Your task to perform on an android device: open chrome privacy settings Image 0: 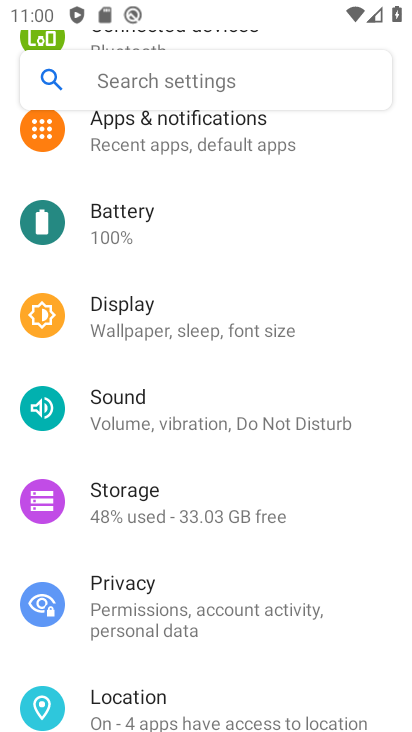
Step 0: press back button
Your task to perform on an android device: open chrome privacy settings Image 1: 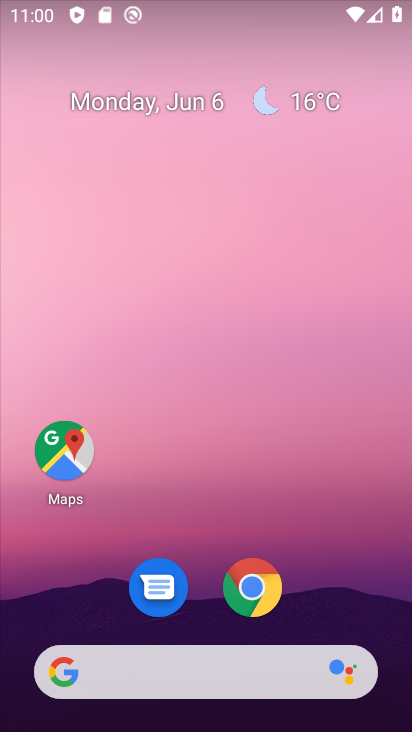
Step 1: drag from (297, 583) to (256, 5)
Your task to perform on an android device: open chrome privacy settings Image 2: 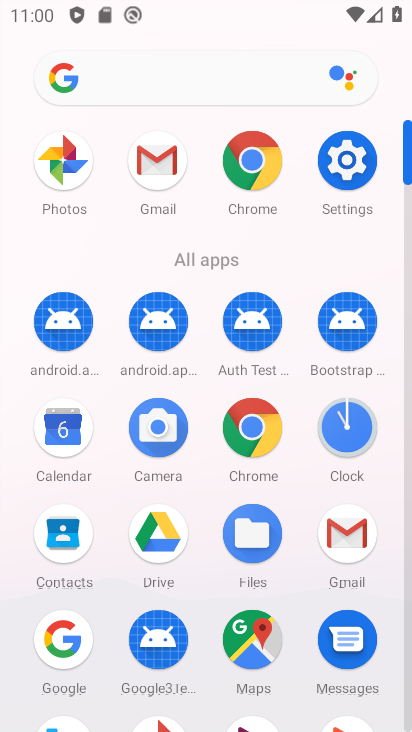
Step 2: drag from (9, 637) to (27, 252)
Your task to perform on an android device: open chrome privacy settings Image 3: 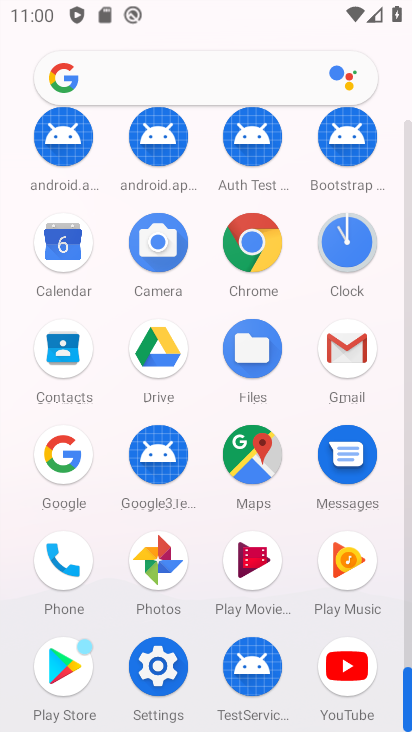
Step 3: click (155, 661)
Your task to perform on an android device: open chrome privacy settings Image 4: 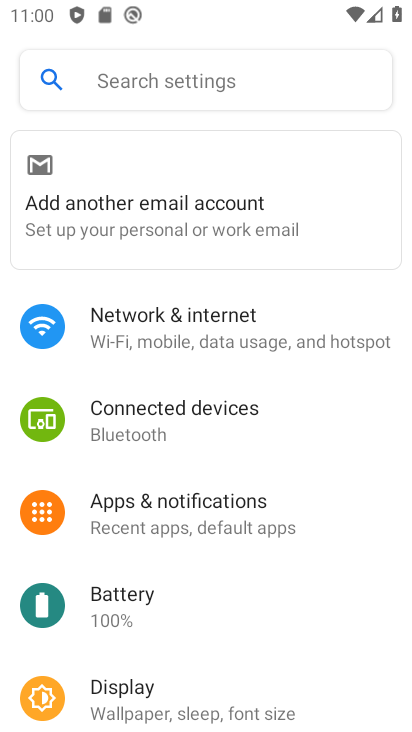
Step 4: press back button
Your task to perform on an android device: open chrome privacy settings Image 5: 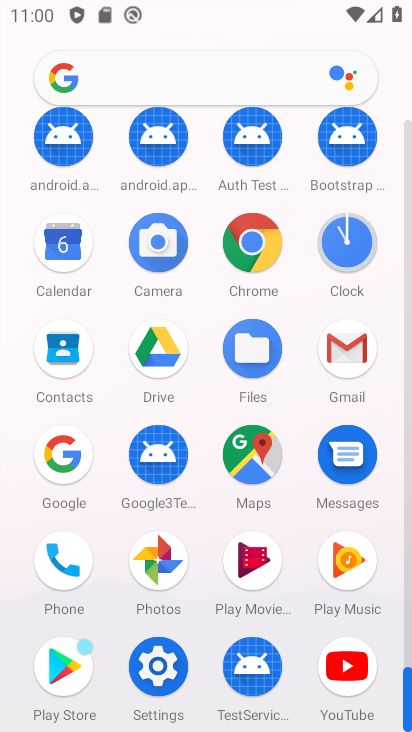
Step 5: click (253, 236)
Your task to perform on an android device: open chrome privacy settings Image 6: 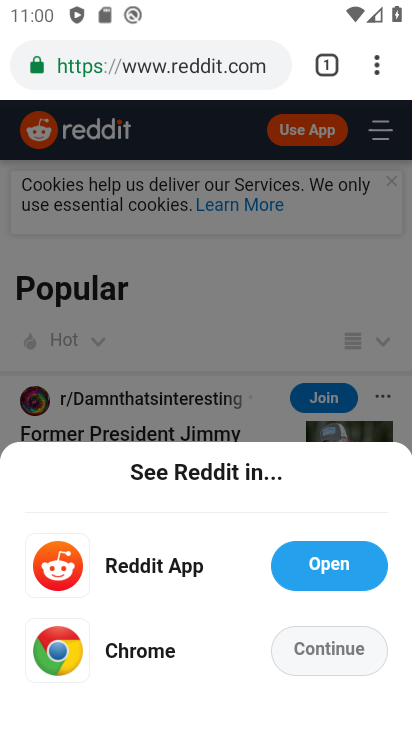
Step 6: drag from (371, 63) to (147, 637)
Your task to perform on an android device: open chrome privacy settings Image 7: 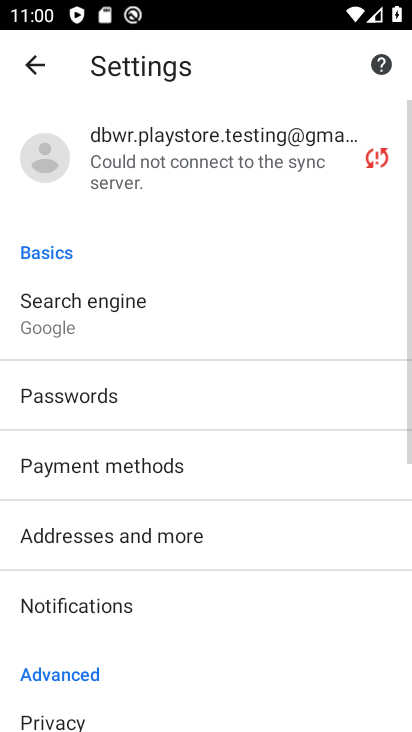
Step 7: drag from (152, 632) to (221, 243)
Your task to perform on an android device: open chrome privacy settings Image 8: 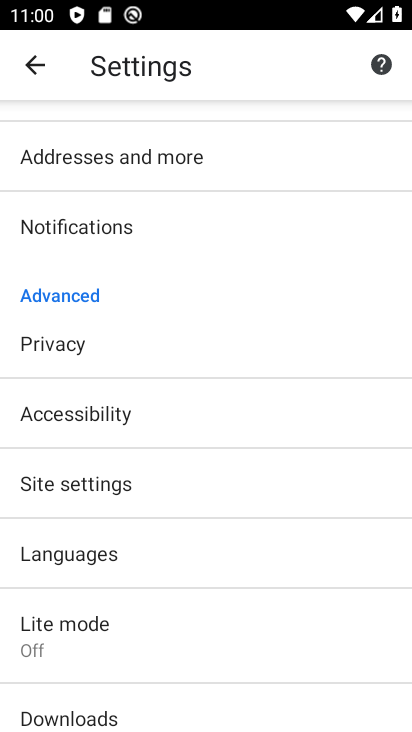
Step 8: click (146, 348)
Your task to perform on an android device: open chrome privacy settings Image 9: 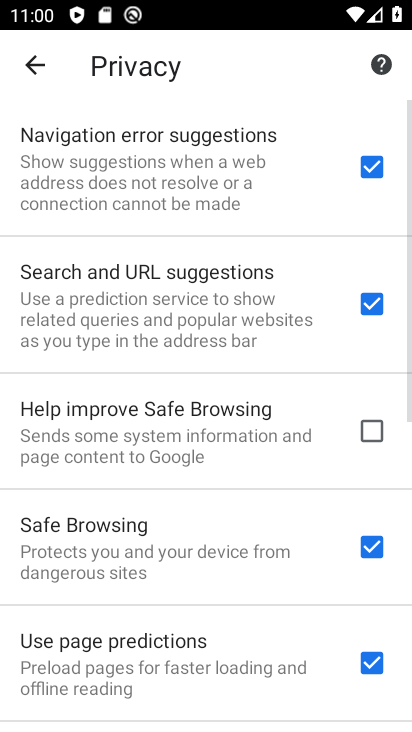
Step 9: task complete